Your task to perform on an android device: toggle javascript in the chrome app Image 0: 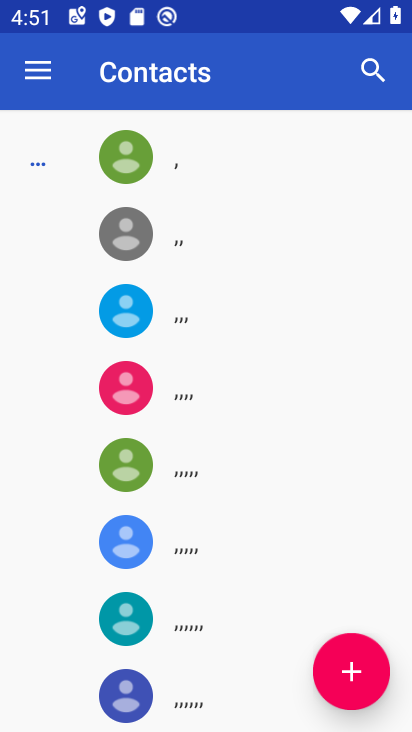
Step 0: press home button
Your task to perform on an android device: toggle javascript in the chrome app Image 1: 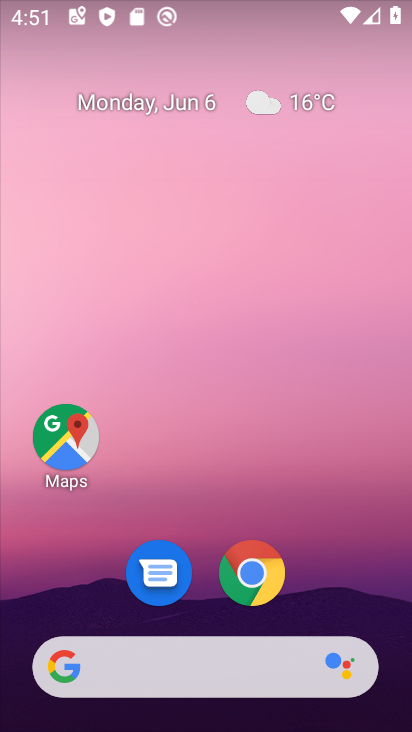
Step 1: click (256, 576)
Your task to perform on an android device: toggle javascript in the chrome app Image 2: 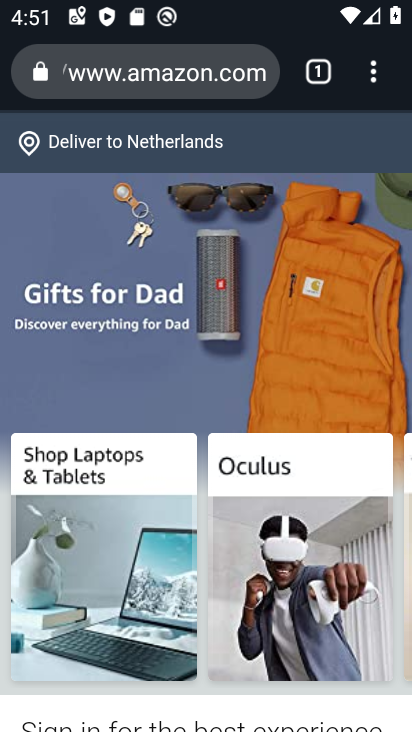
Step 2: click (374, 73)
Your task to perform on an android device: toggle javascript in the chrome app Image 3: 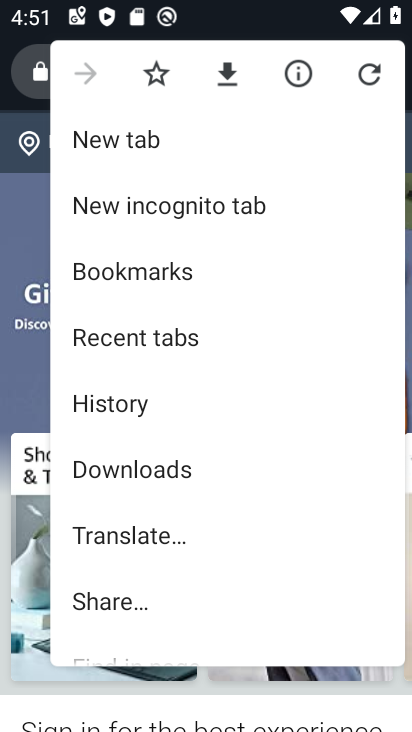
Step 3: drag from (166, 570) to (264, 398)
Your task to perform on an android device: toggle javascript in the chrome app Image 4: 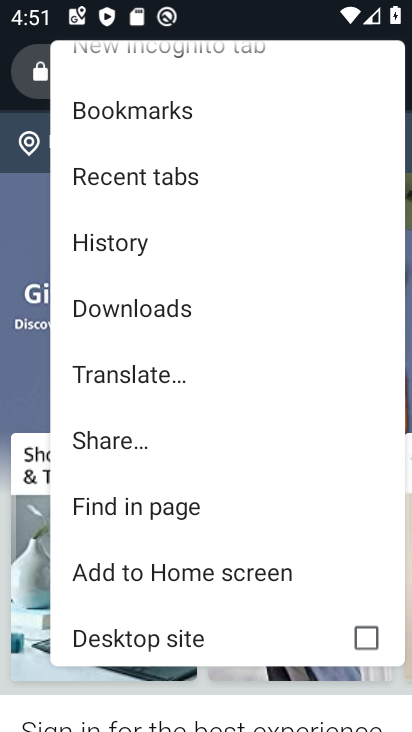
Step 4: drag from (210, 541) to (290, 420)
Your task to perform on an android device: toggle javascript in the chrome app Image 5: 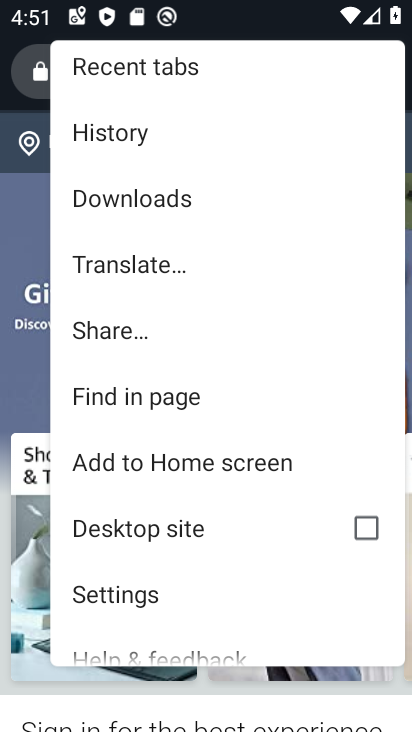
Step 5: click (142, 605)
Your task to perform on an android device: toggle javascript in the chrome app Image 6: 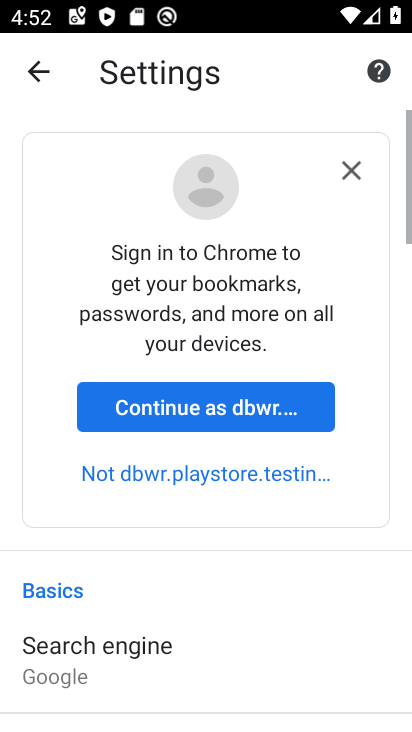
Step 6: drag from (186, 618) to (266, 419)
Your task to perform on an android device: toggle javascript in the chrome app Image 7: 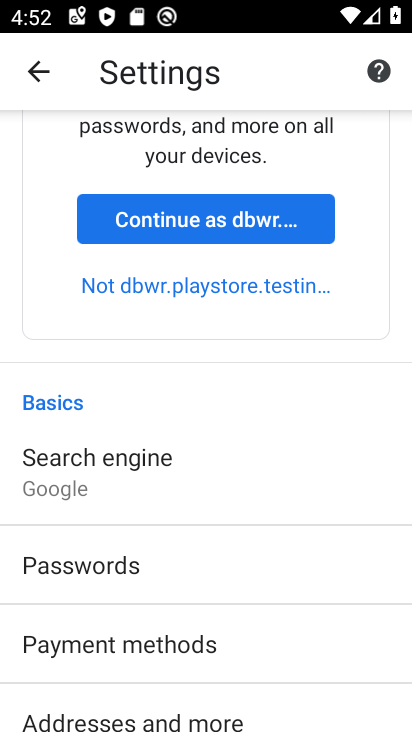
Step 7: drag from (194, 615) to (278, 446)
Your task to perform on an android device: toggle javascript in the chrome app Image 8: 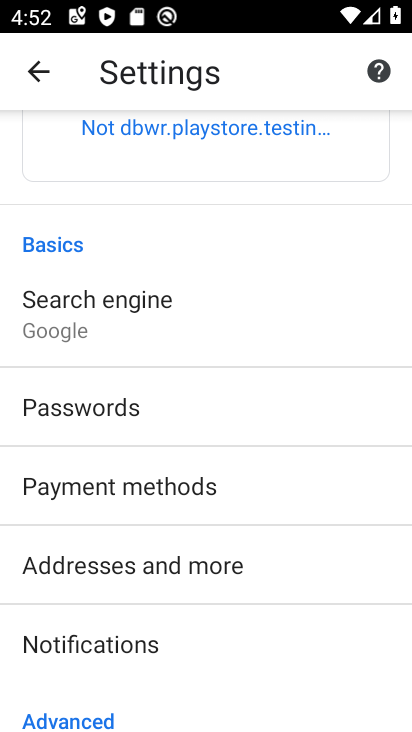
Step 8: drag from (214, 641) to (293, 445)
Your task to perform on an android device: toggle javascript in the chrome app Image 9: 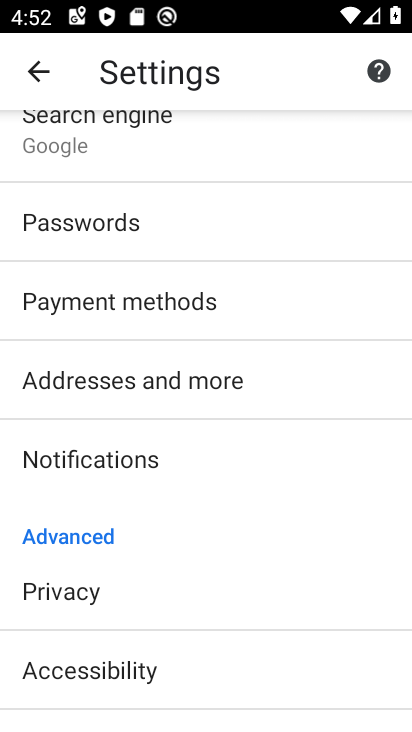
Step 9: drag from (209, 673) to (299, 498)
Your task to perform on an android device: toggle javascript in the chrome app Image 10: 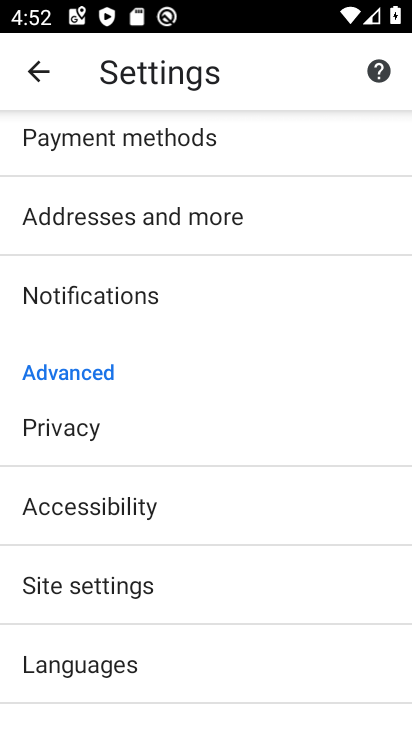
Step 10: click (152, 591)
Your task to perform on an android device: toggle javascript in the chrome app Image 11: 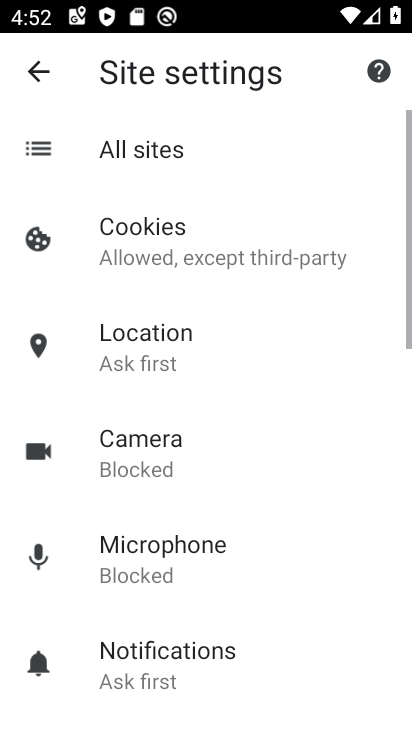
Step 11: drag from (203, 623) to (239, 379)
Your task to perform on an android device: toggle javascript in the chrome app Image 12: 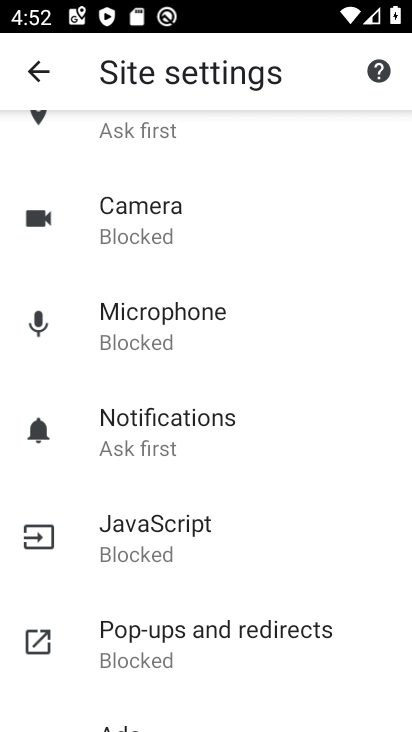
Step 12: click (167, 554)
Your task to perform on an android device: toggle javascript in the chrome app Image 13: 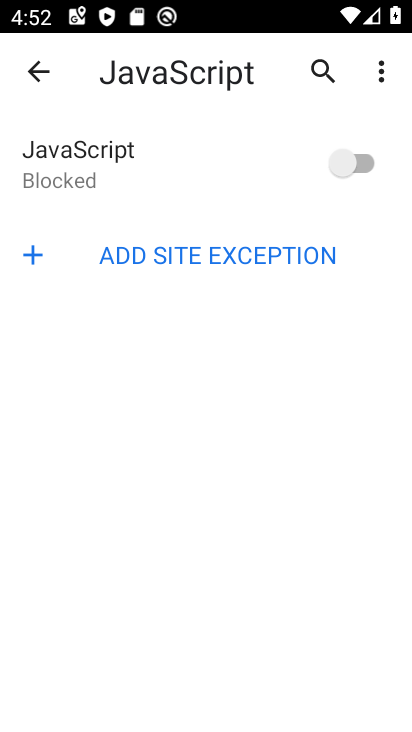
Step 13: click (330, 168)
Your task to perform on an android device: toggle javascript in the chrome app Image 14: 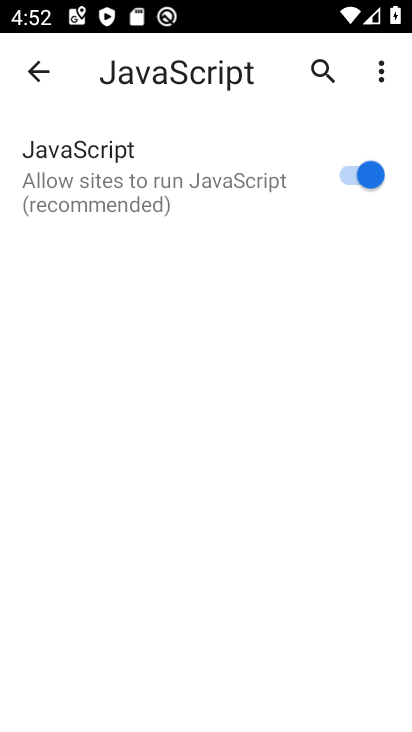
Step 14: task complete